Your task to perform on an android device: change notification settings in the gmail app Image 0: 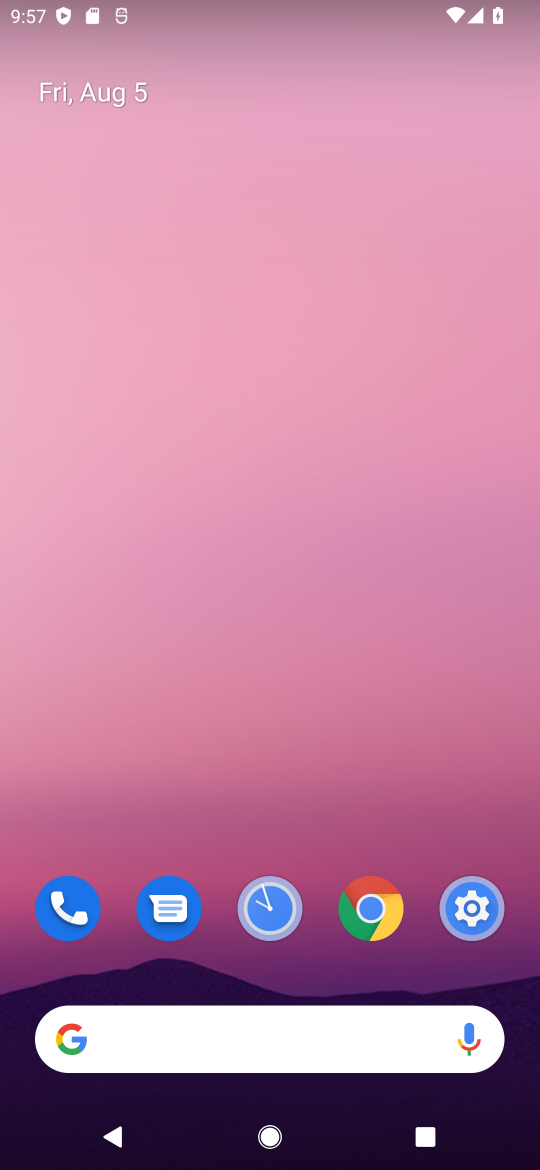
Step 0: task complete